Your task to perform on an android device: Search for hotels in Miami Image 0: 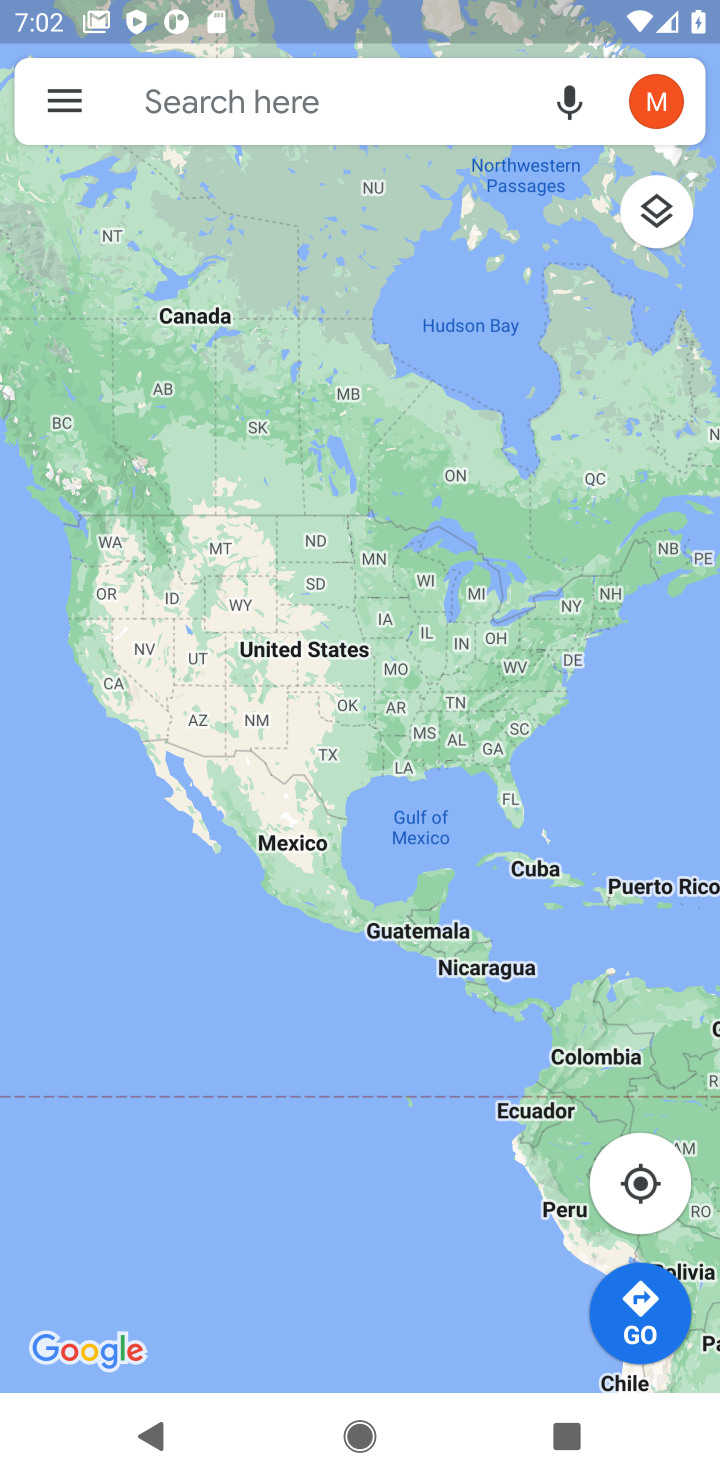
Step 0: press home button
Your task to perform on an android device: Search for hotels in Miami Image 1: 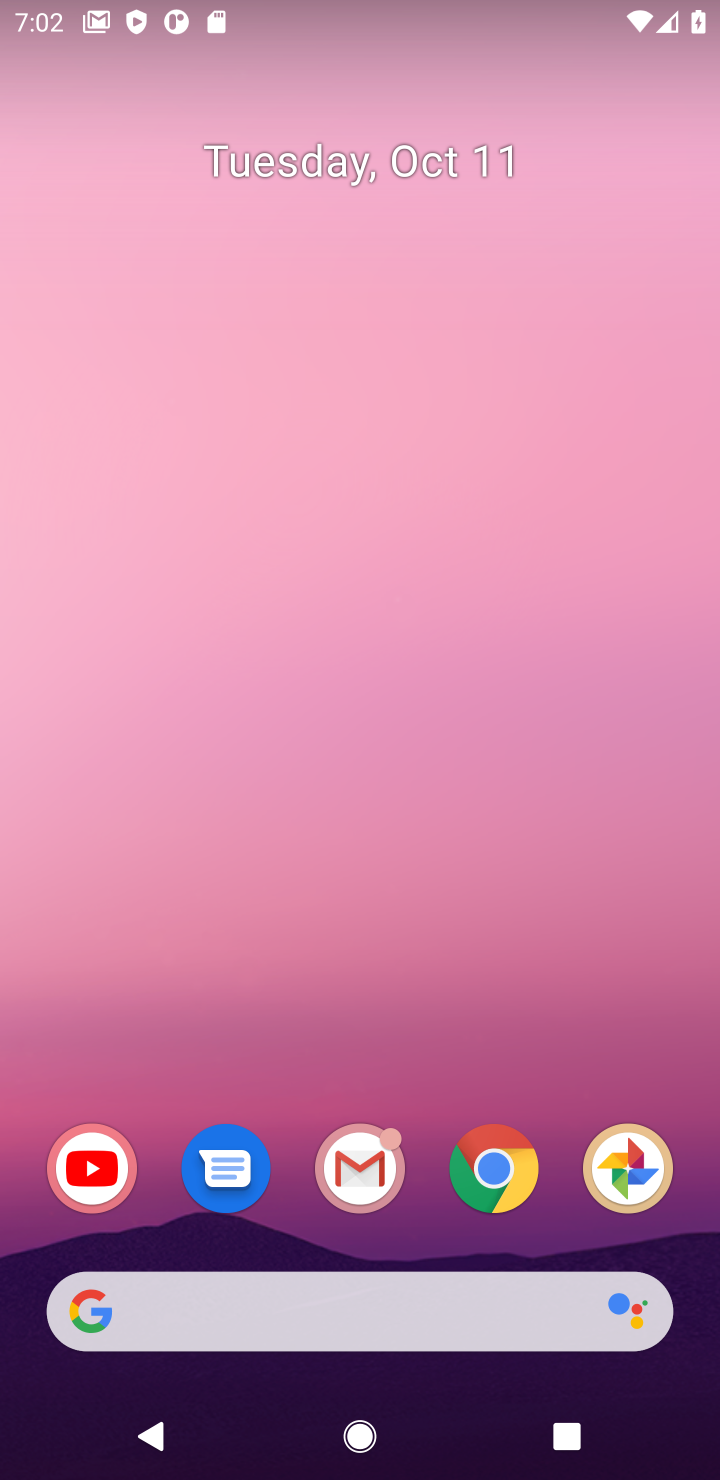
Step 1: click (483, 1167)
Your task to perform on an android device: Search for hotels in Miami Image 2: 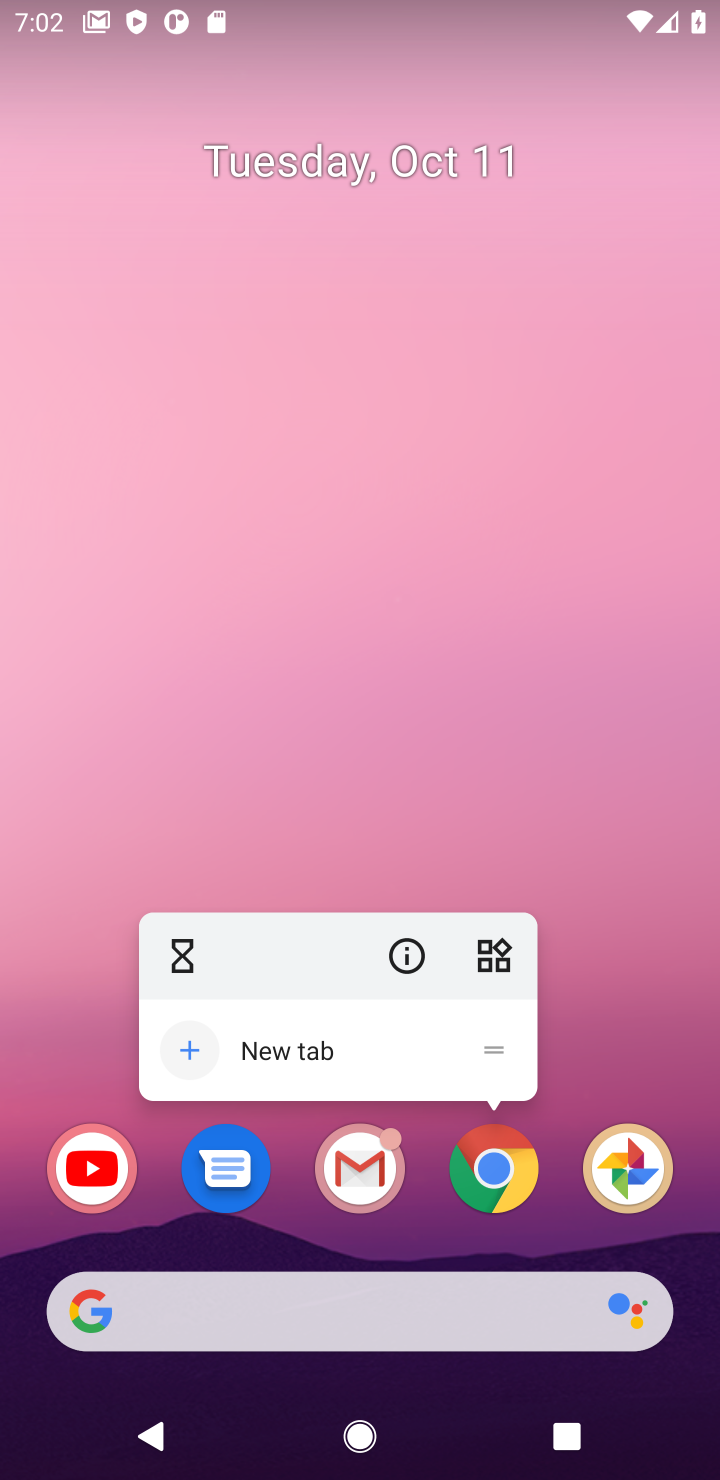
Step 2: click (482, 1162)
Your task to perform on an android device: Search for hotels in Miami Image 3: 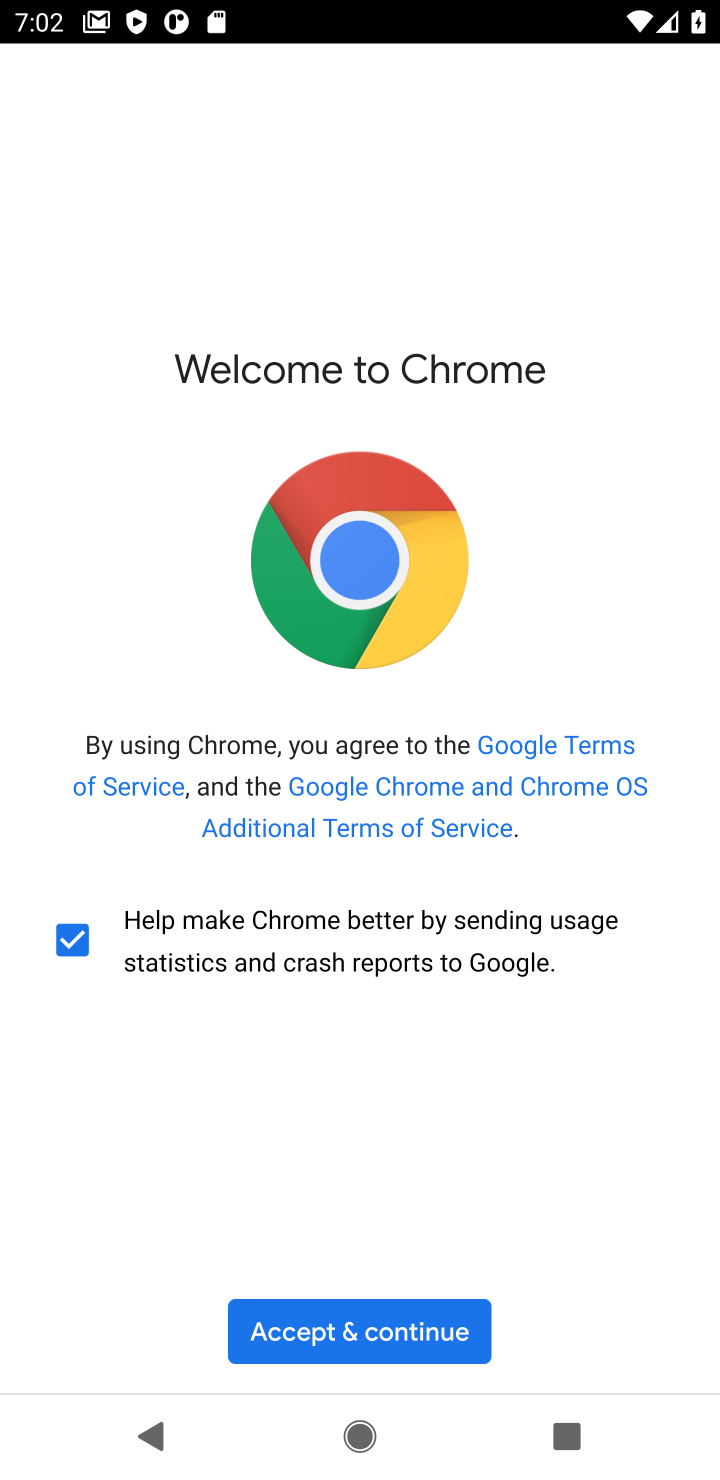
Step 3: click (274, 1349)
Your task to perform on an android device: Search for hotels in Miami Image 4: 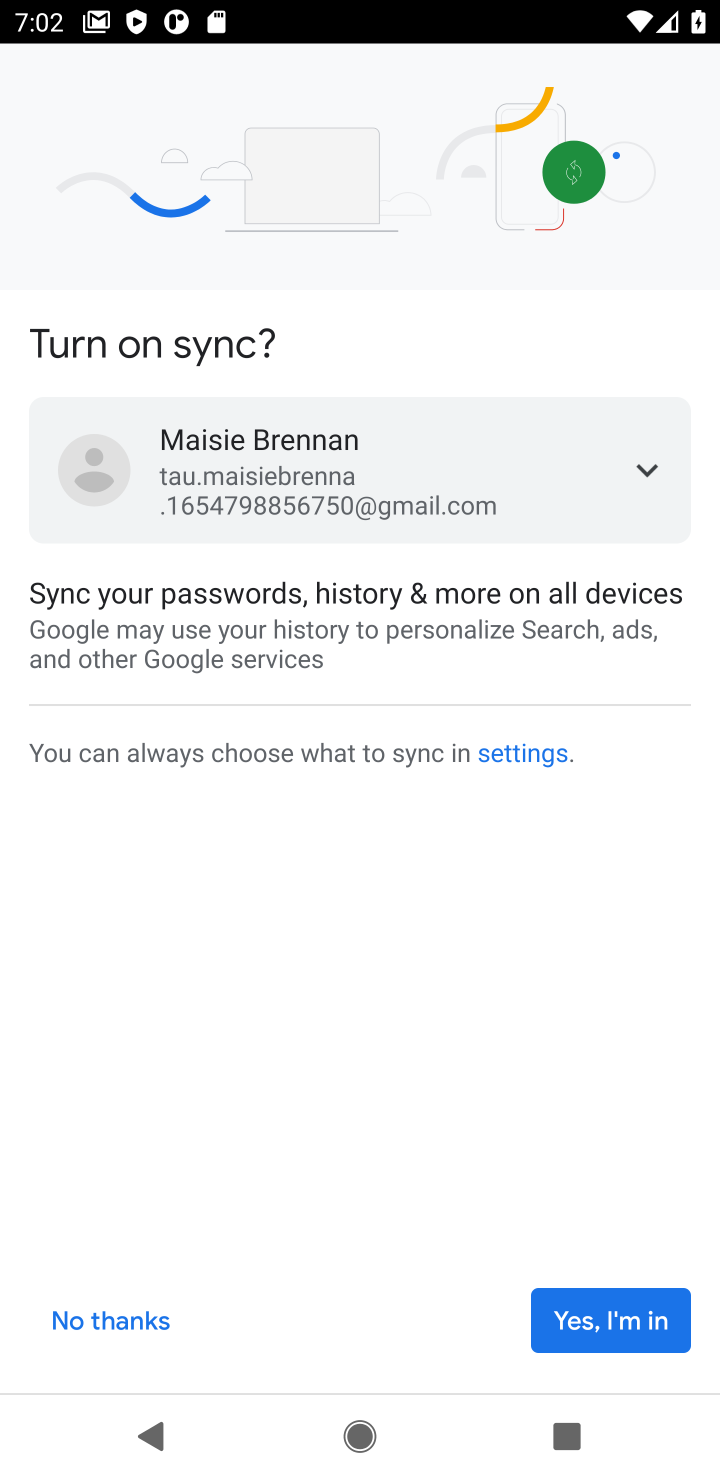
Step 4: click (634, 1314)
Your task to perform on an android device: Search for hotels in Miami Image 5: 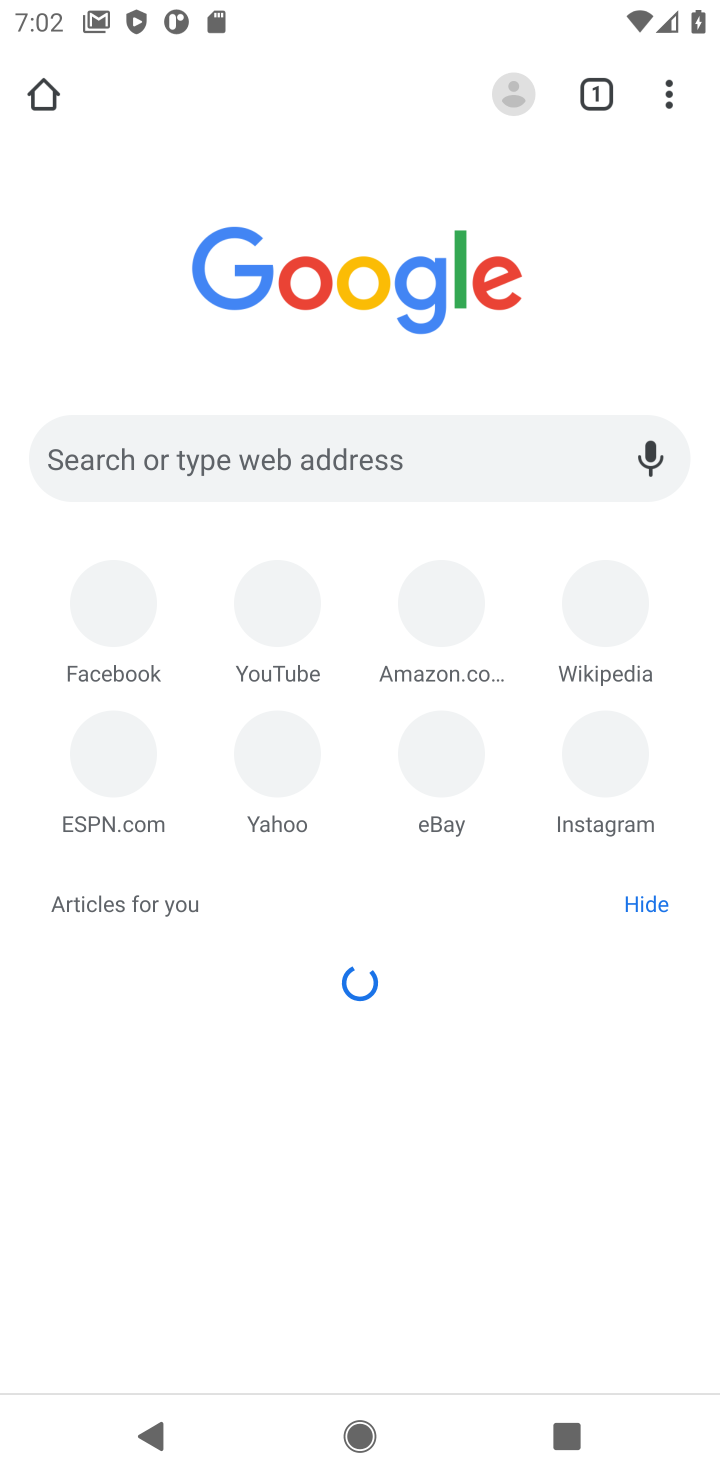
Step 5: click (136, 451)
Your task to perform on an android device: Search for hotels in Miami Image 6: 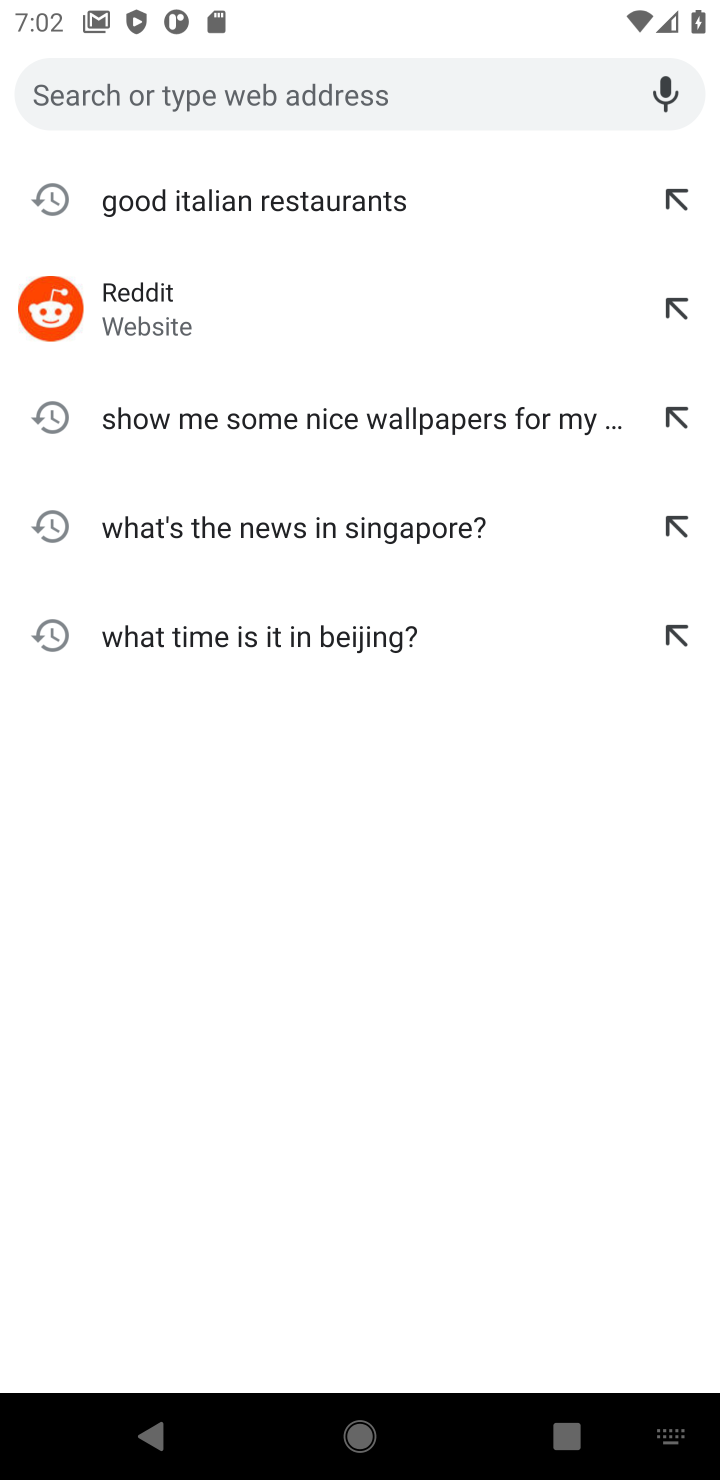
Step 6: type "hotel for miami"
Your task to perform on an android device: Search for hotels in Miami Image 7: 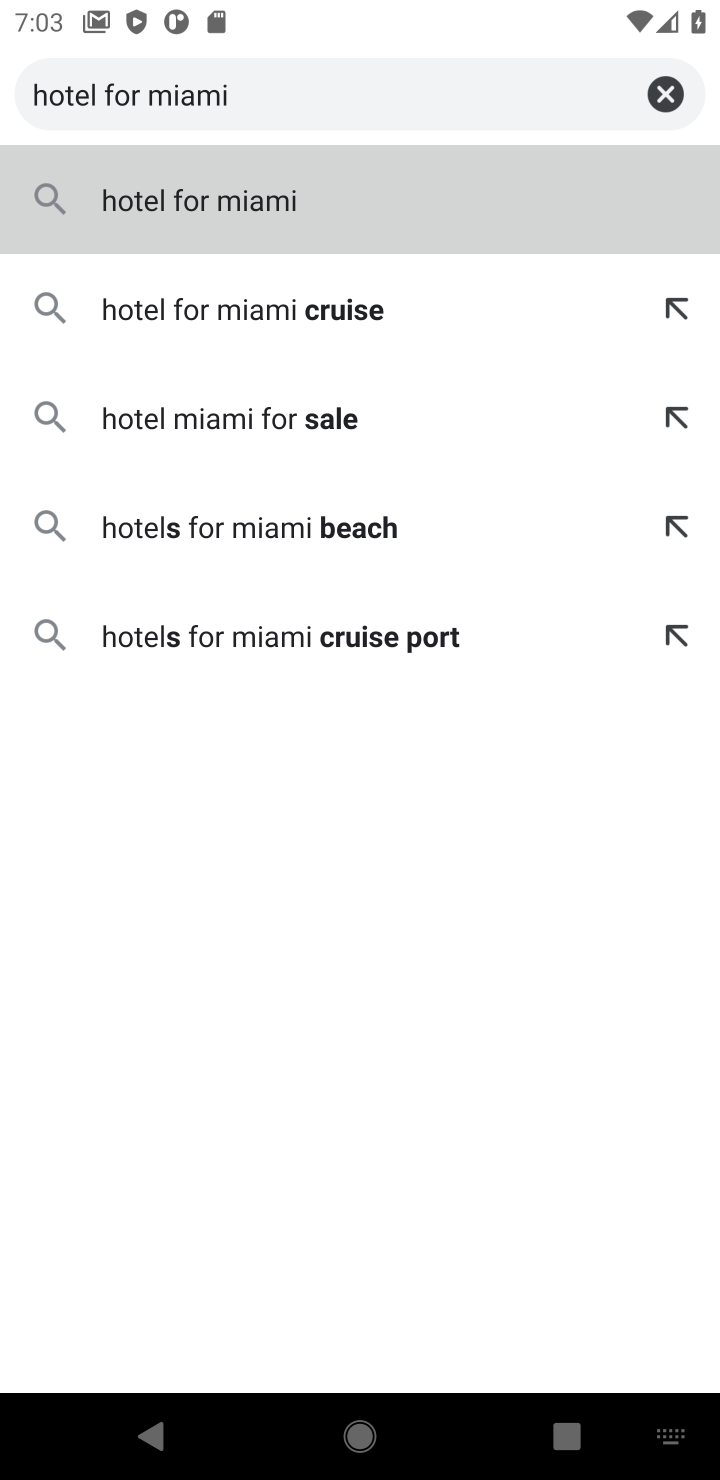
Step 7: type ""
Your task to perform on an android device: Search for hotels in Miami Image 8: 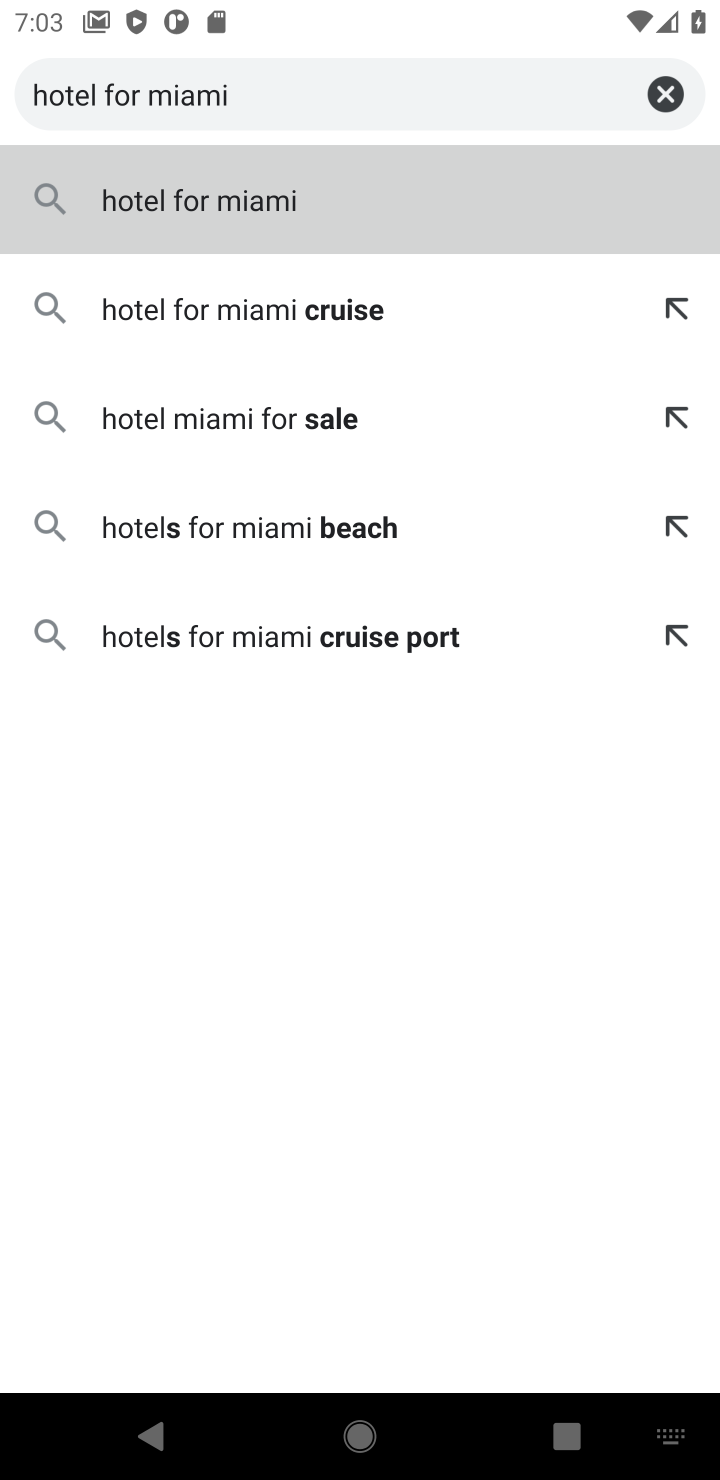
Step 8: click (239, 223)
Your task to perform on an android device: Search for hotels in Miami Image 9: 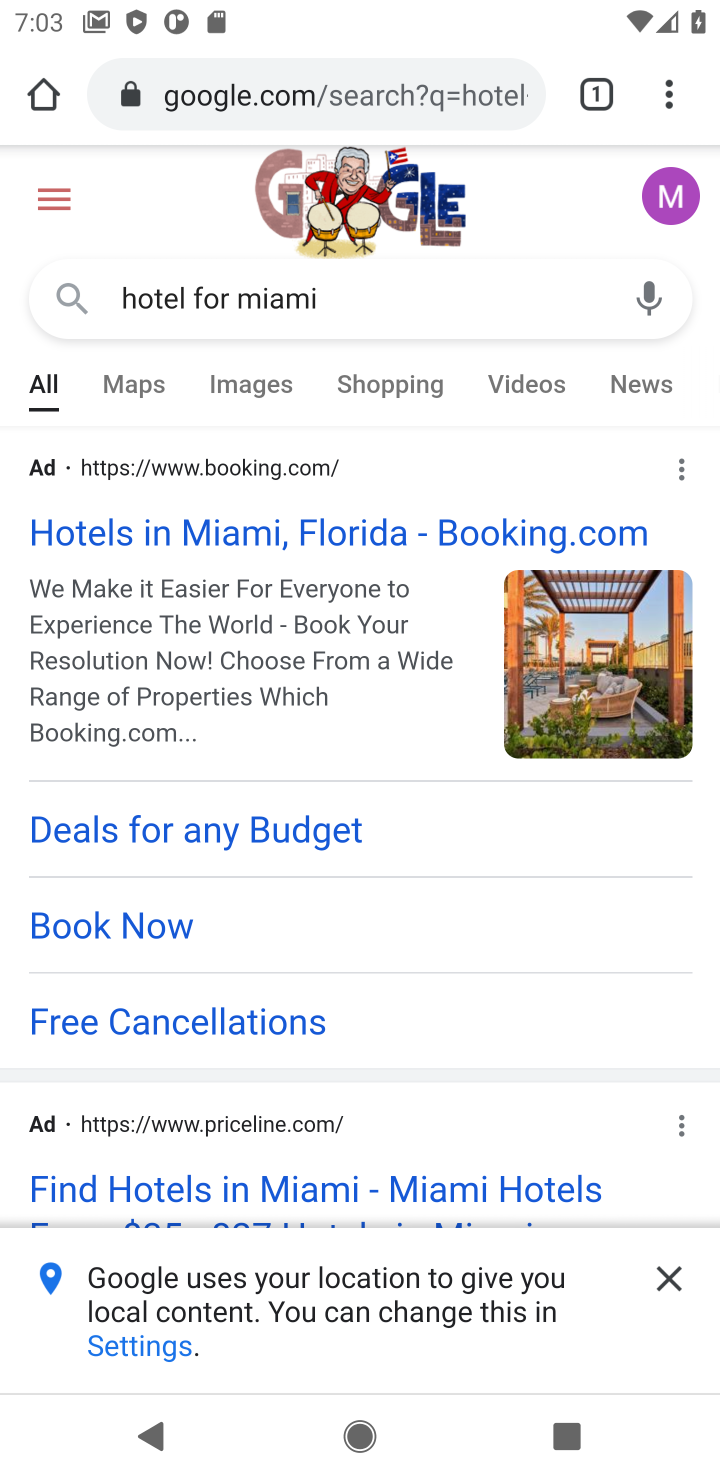
Step 9: click (221, 532)
Your task to perform on an android device: Search for hotels in Miami Image 10: 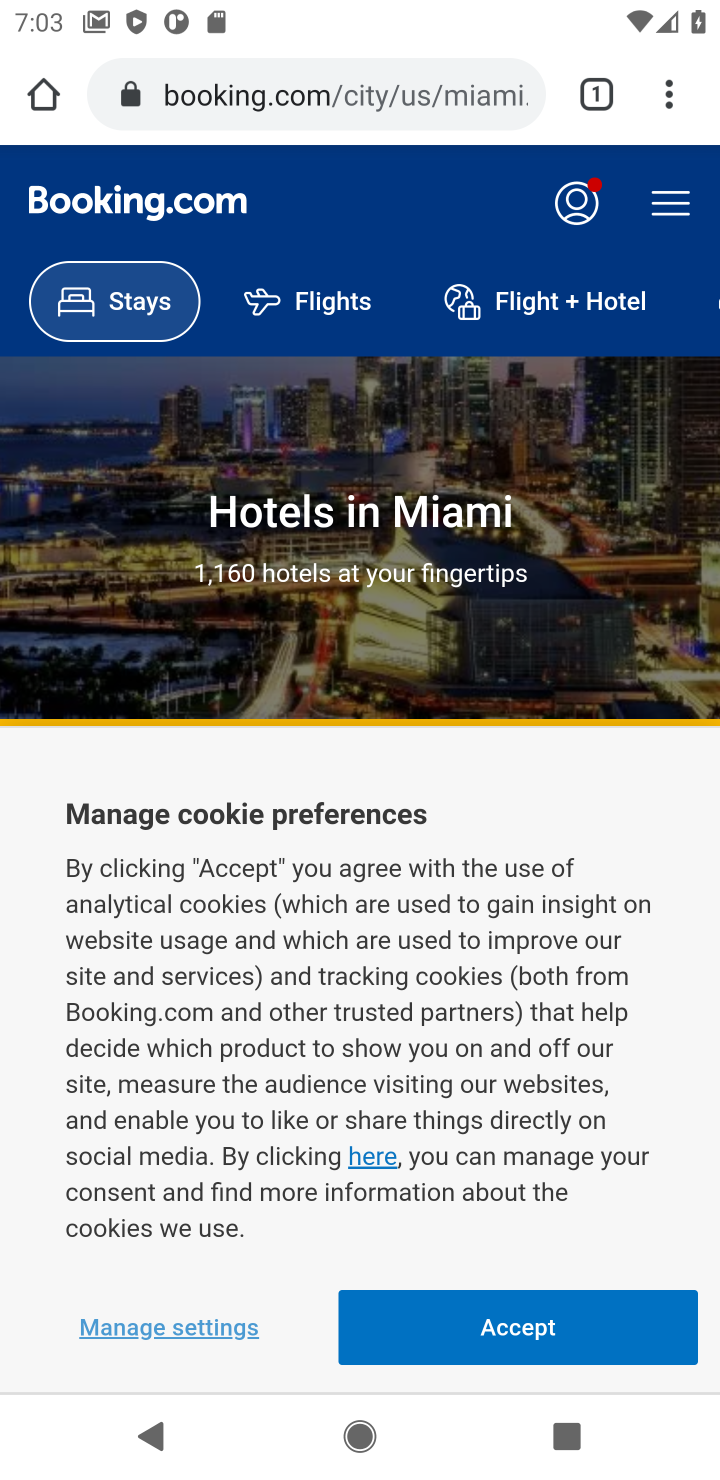
Step 10: click (550, 1334)
Your task to perform on an android device: Search for hotels in Miami Image 11: 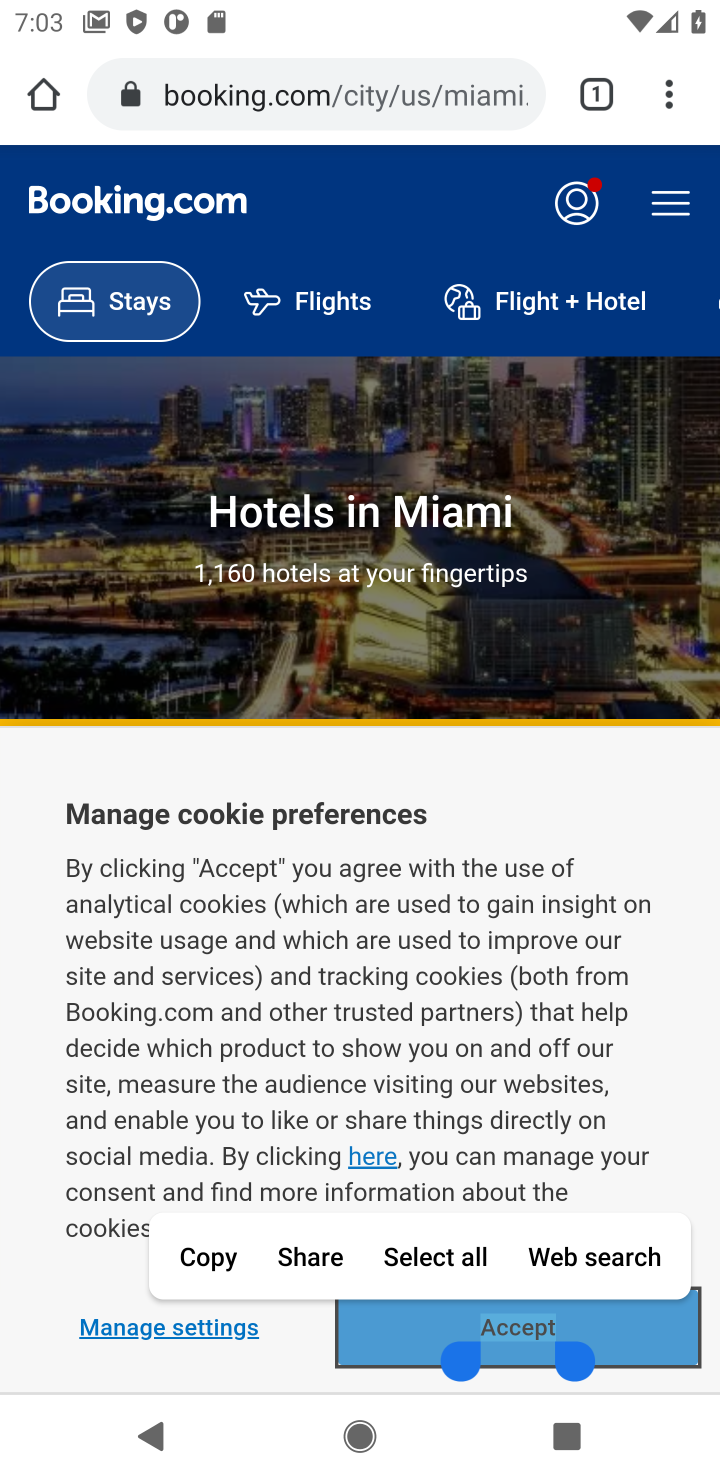
Step 11: drag from (393, 896) to (488, 312)
Your task to perform on an android device: Search for hotels in Miami Image 12: 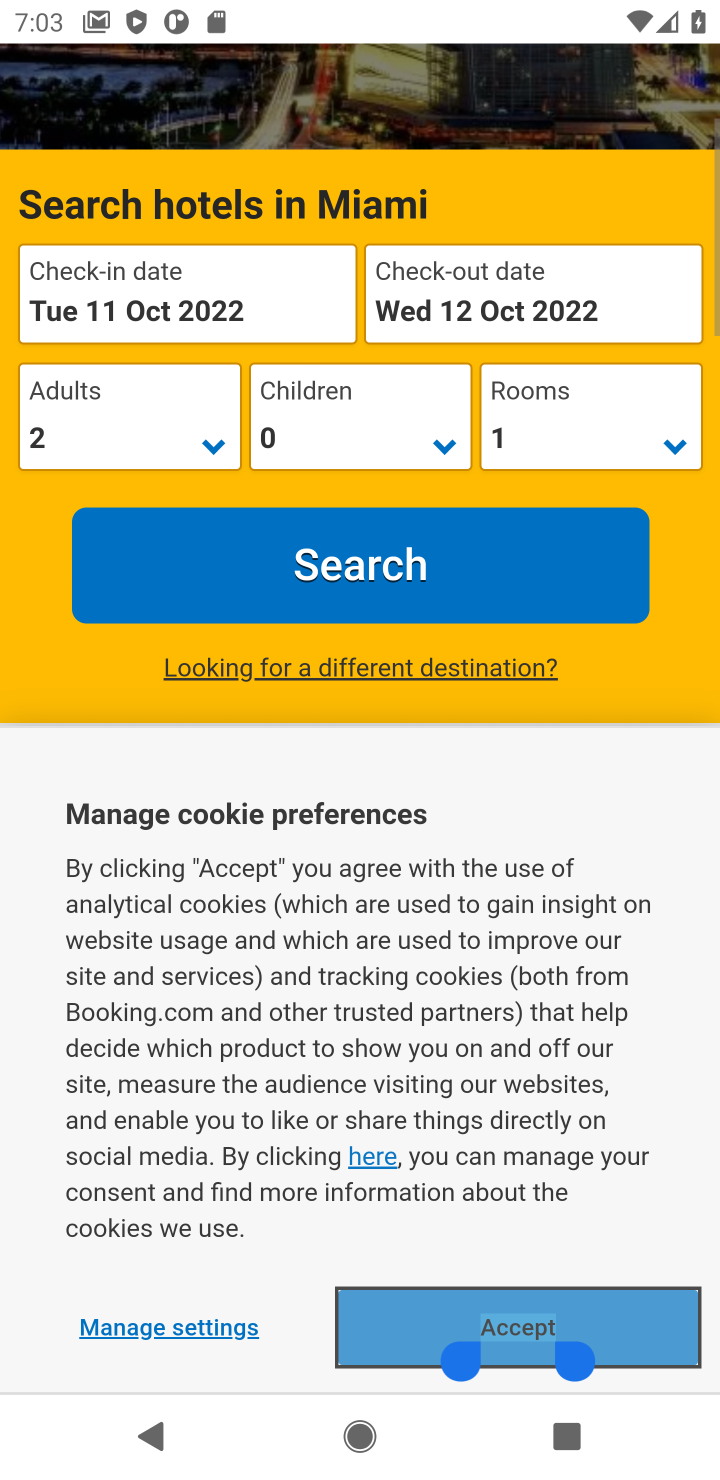
Step 12: drag from (286, 1021) to (343, 365)
Your task to perform on an android device: Search for hotels in Miami Image 13: 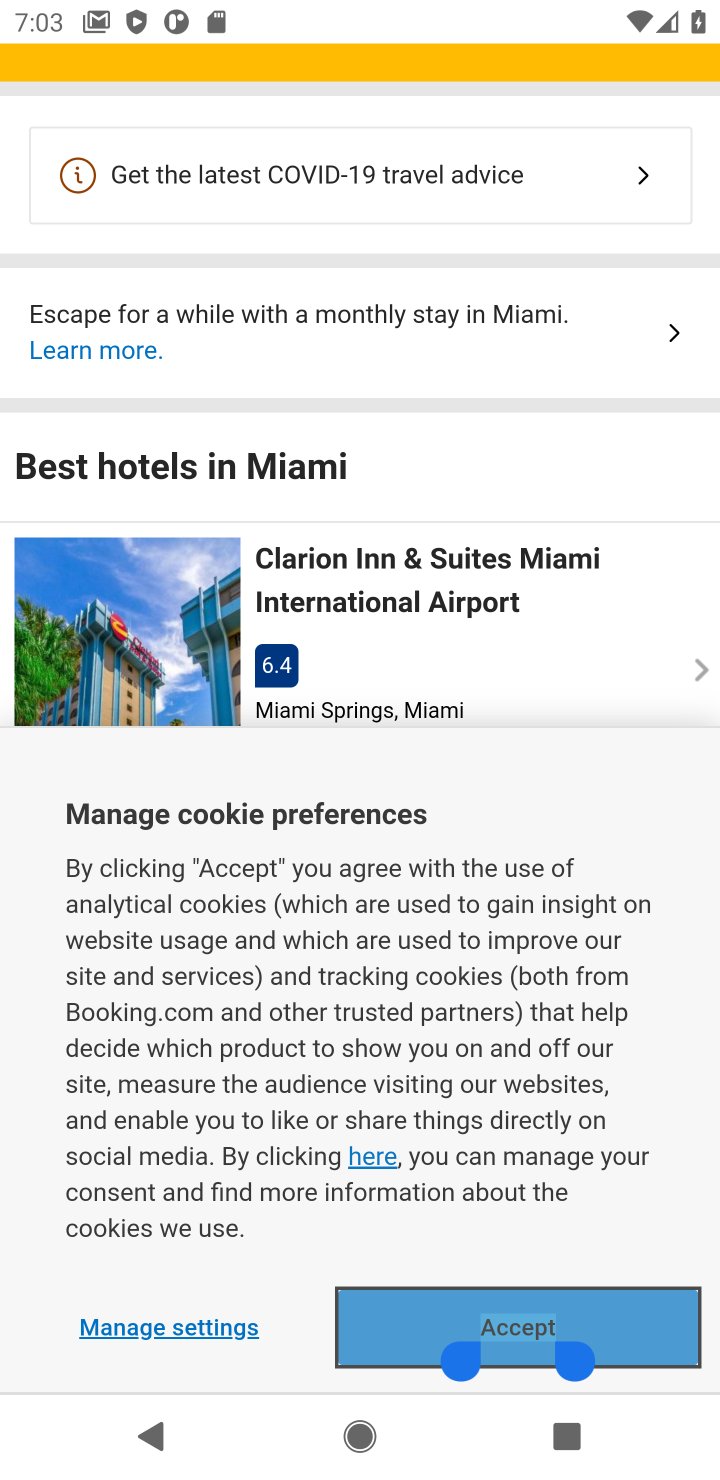
Step 13: drag from (427, 1102) to (428, 672)
Your task to perform on an android device: Search for hotels in Miami Image 14: 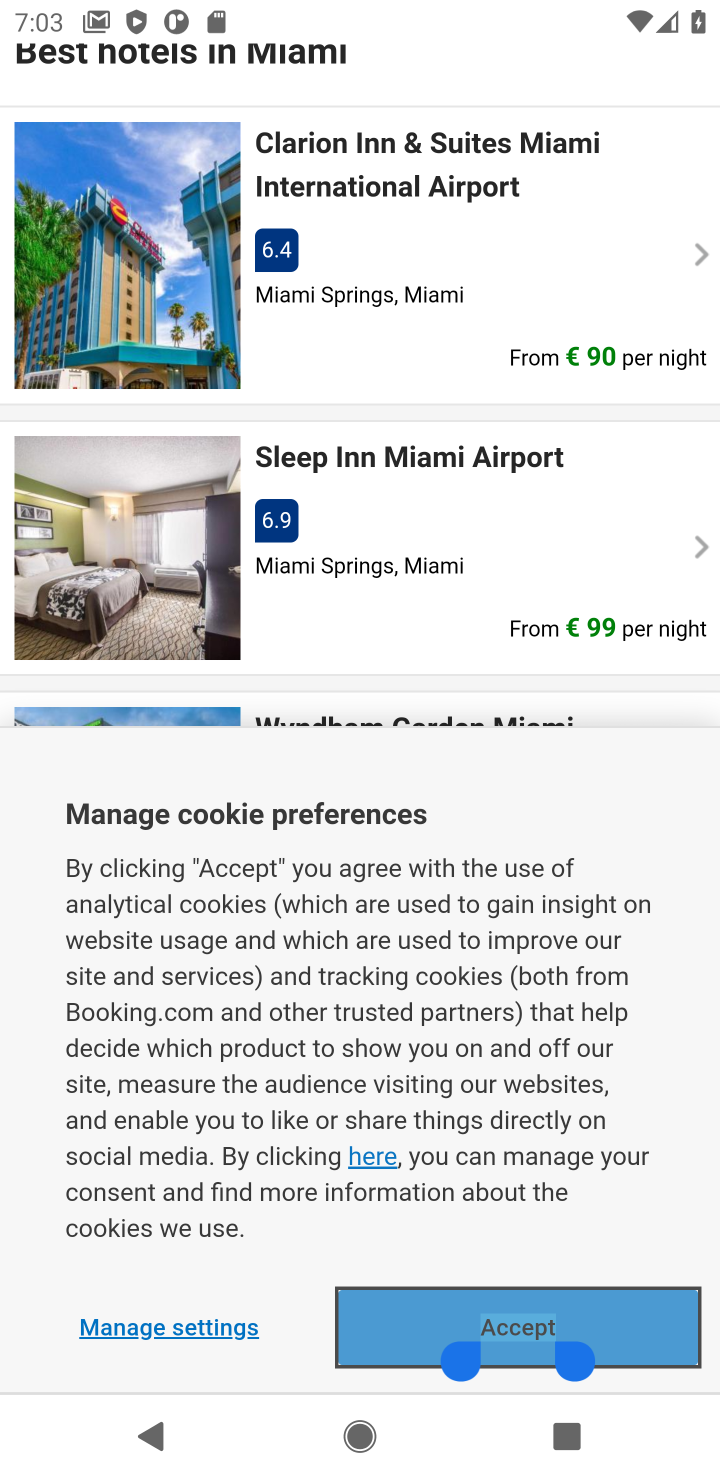
Step 14: click (502, 1331)
Your task to perform on an android device: Search for hotels in Miami Image 15: 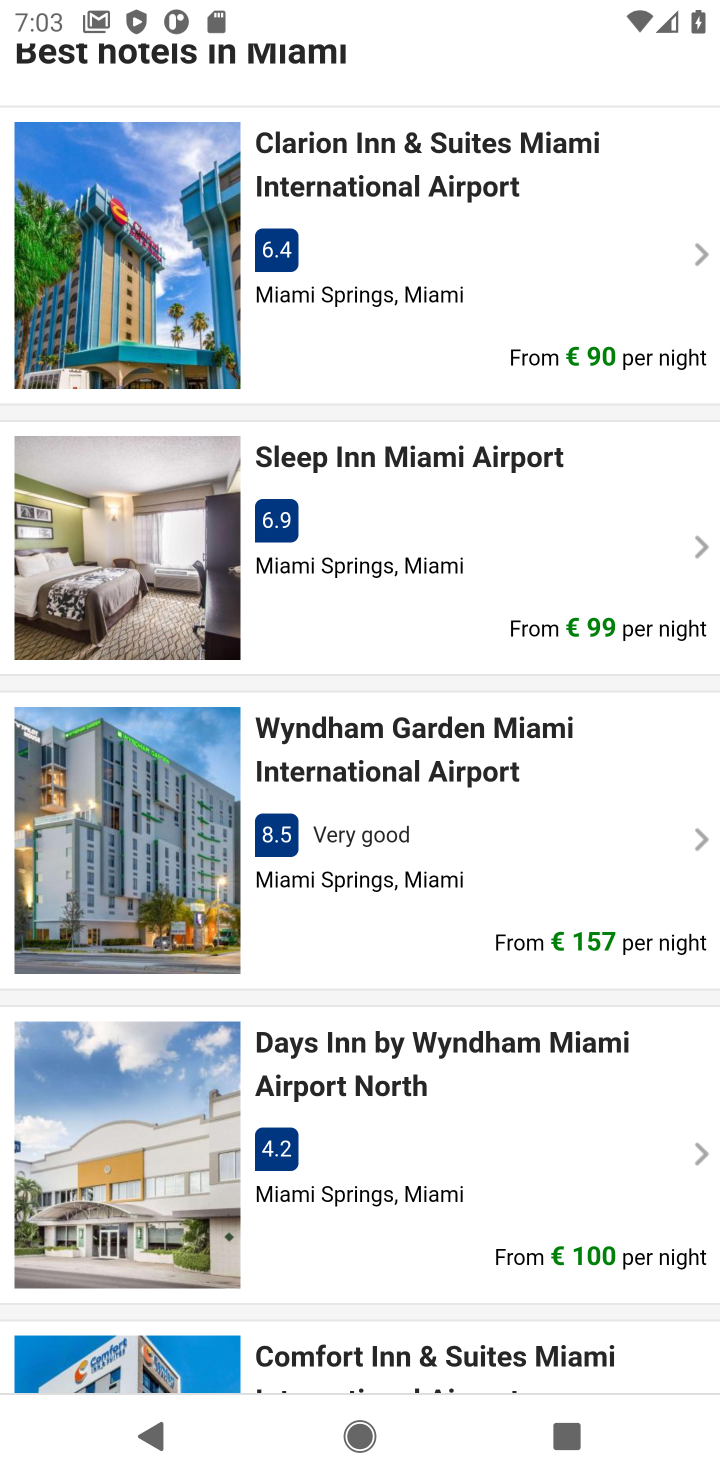
Step 15: drag from (345, 1063) to (383, 329)
Your task to perform on an android device: Search for hotels in Miami Image 16: 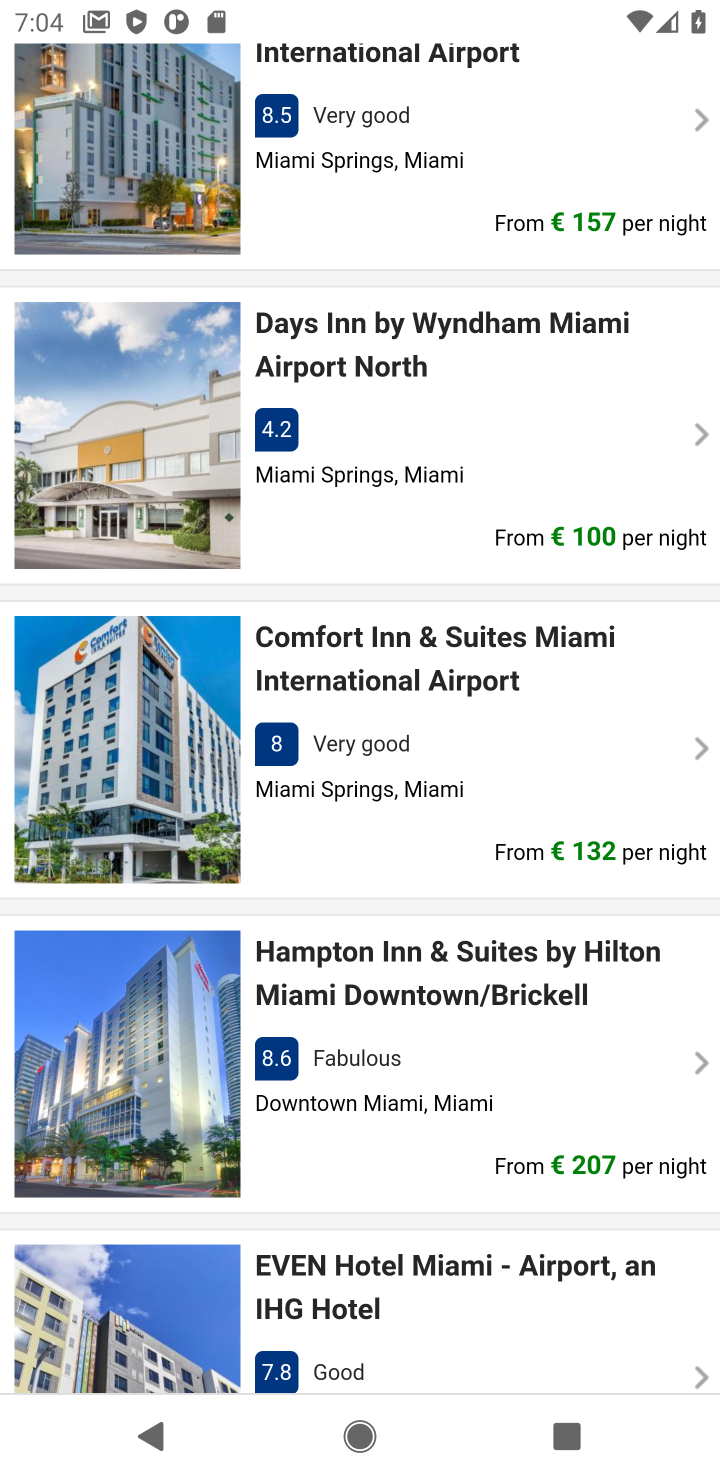
Step 16: drag from (532, 868) to (609, 58)
Your task to perform on an android device: Search for hotels in Miami Image 17: 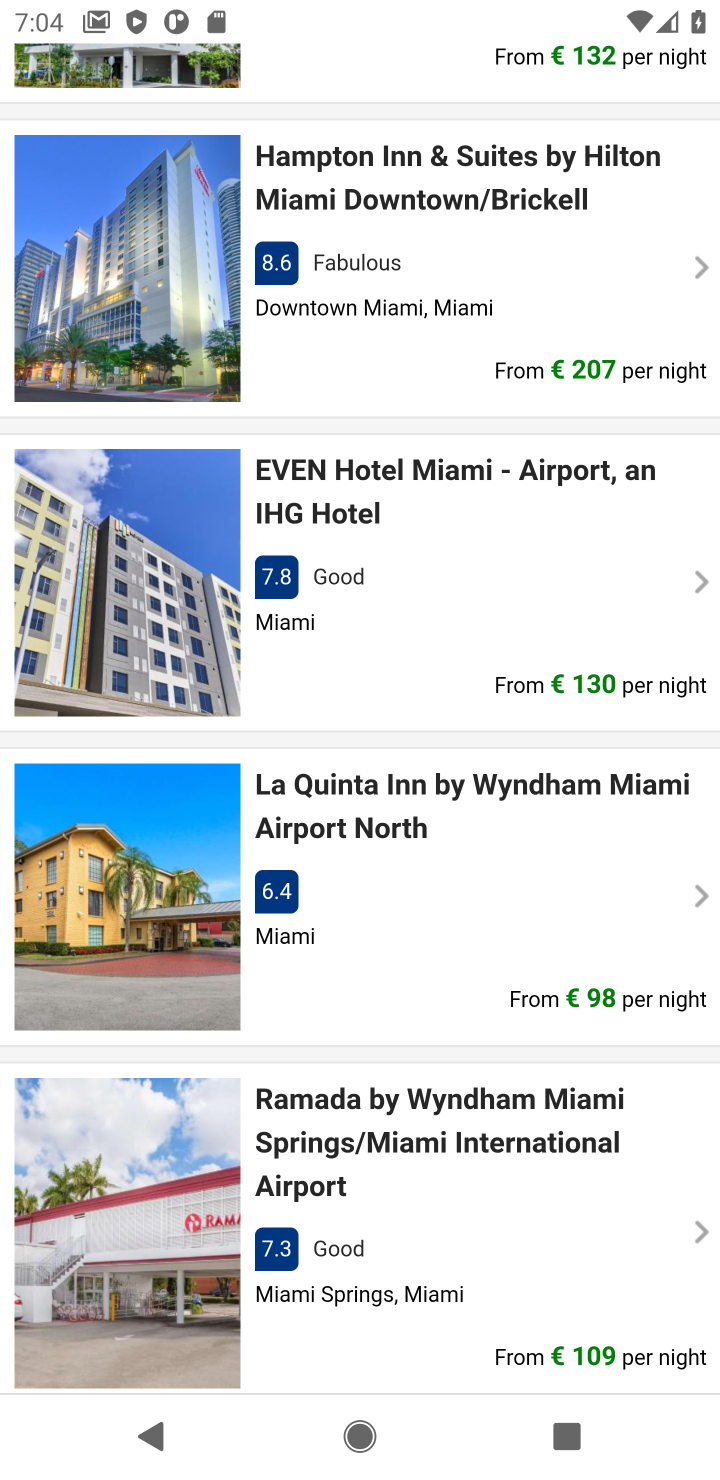
Step 17: drag from (510, 932) to (510, 188)
Your task to perform on an android device: Search for hotels in Miami Image 18: 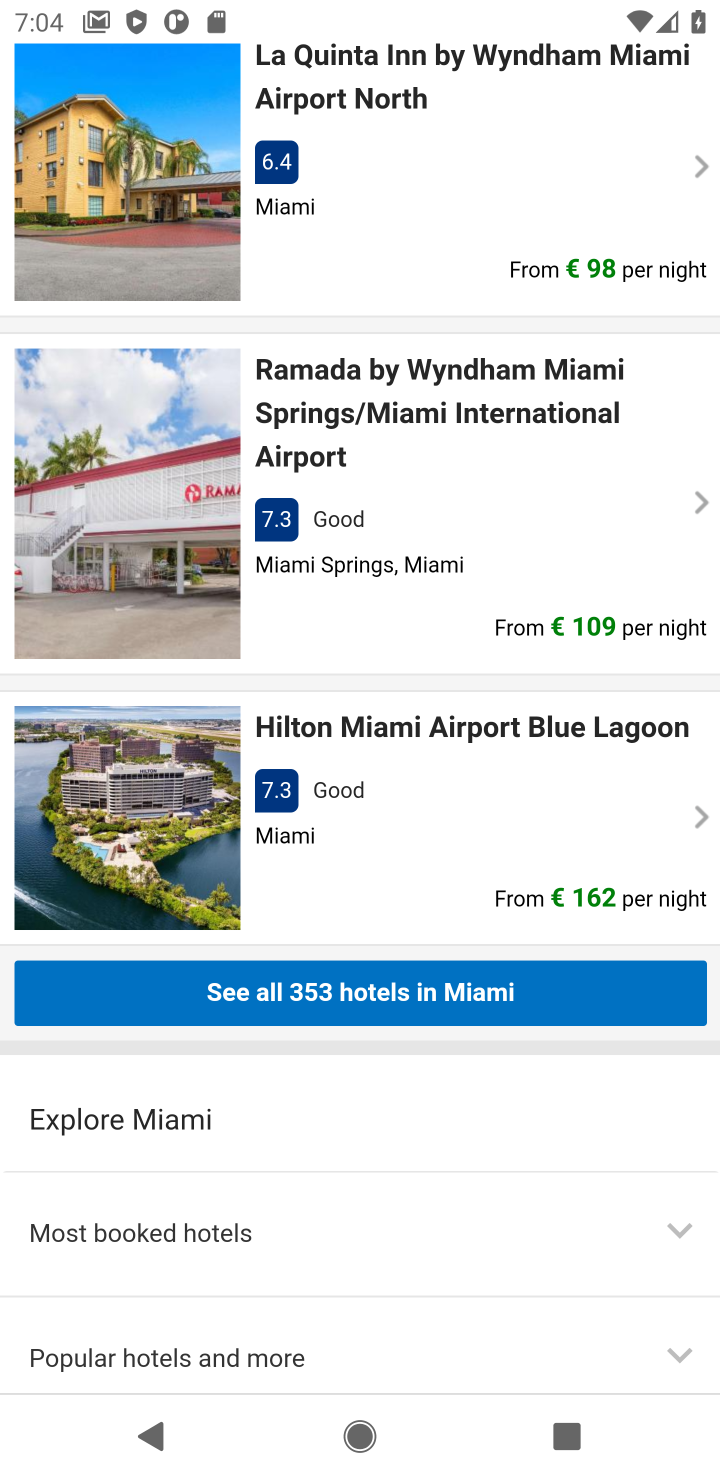
Step 18: click (115, 761)
Your task to perform on an android device: Search for hotels in Miami Image 19: 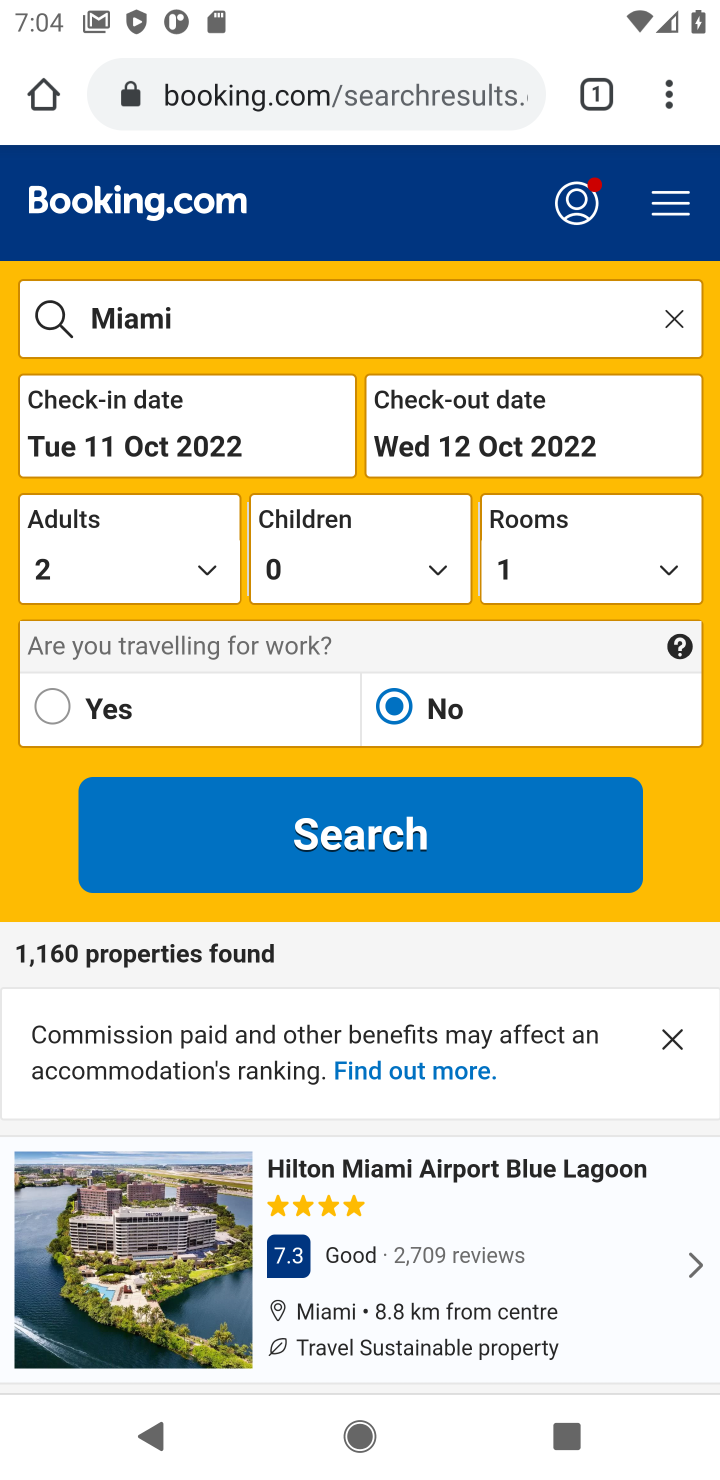
Step 19: drag from (549, 1265) to (689, 437)
Your task to perform on an android device: Search for hotels in Miami Image 20: 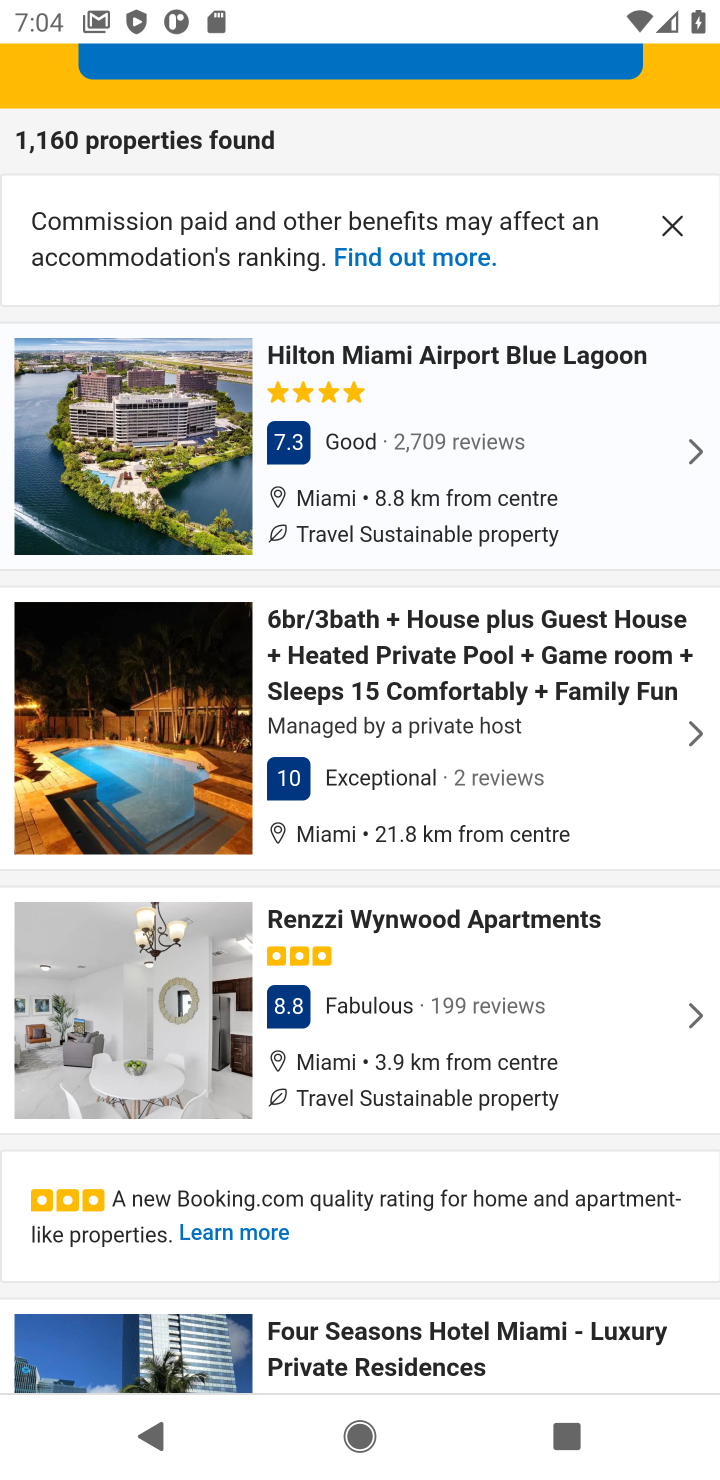
Step 20: click (433, 357)
Your task to perform on an android device: Search for hotels in Miami Image 21: 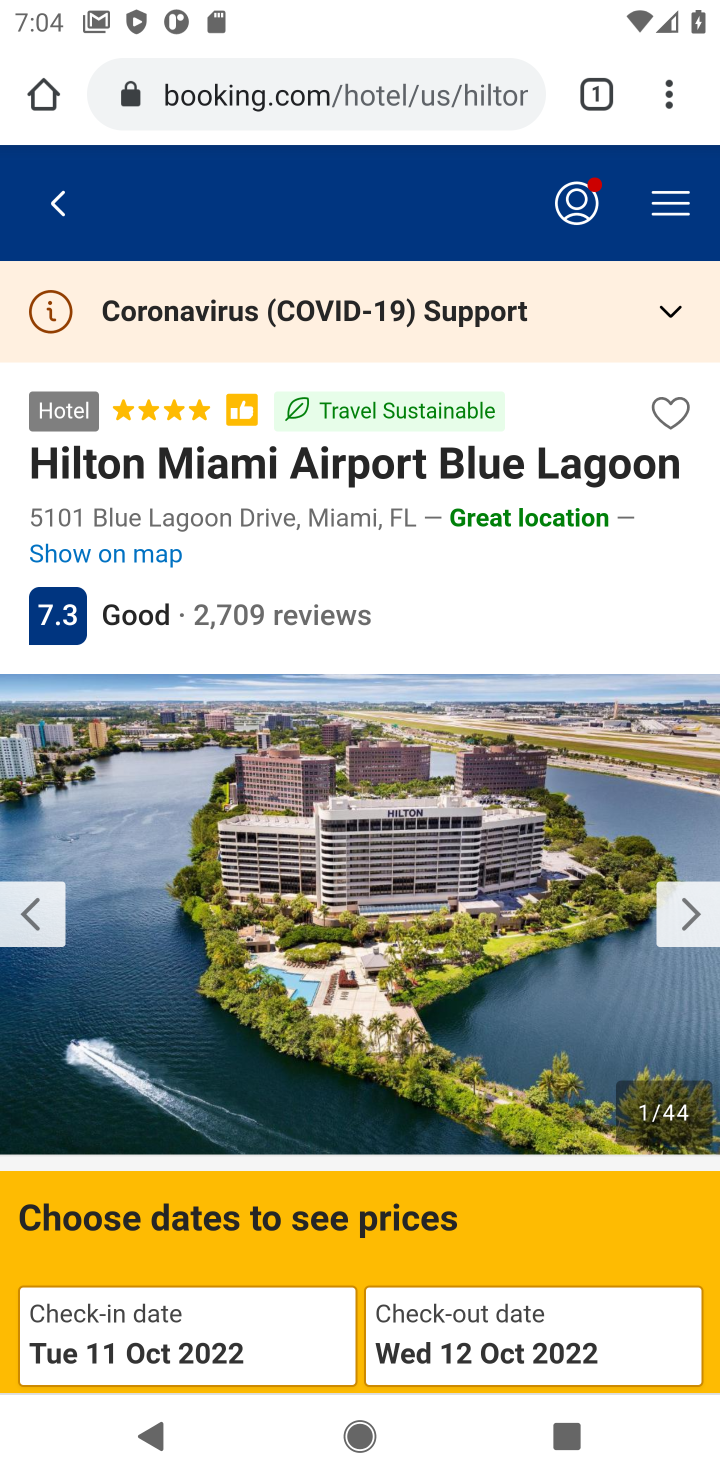
Step 21: drag from (381, 854) to (420, 449)
Your task to perform on an android device: Search for hotels in Miami Image 22: 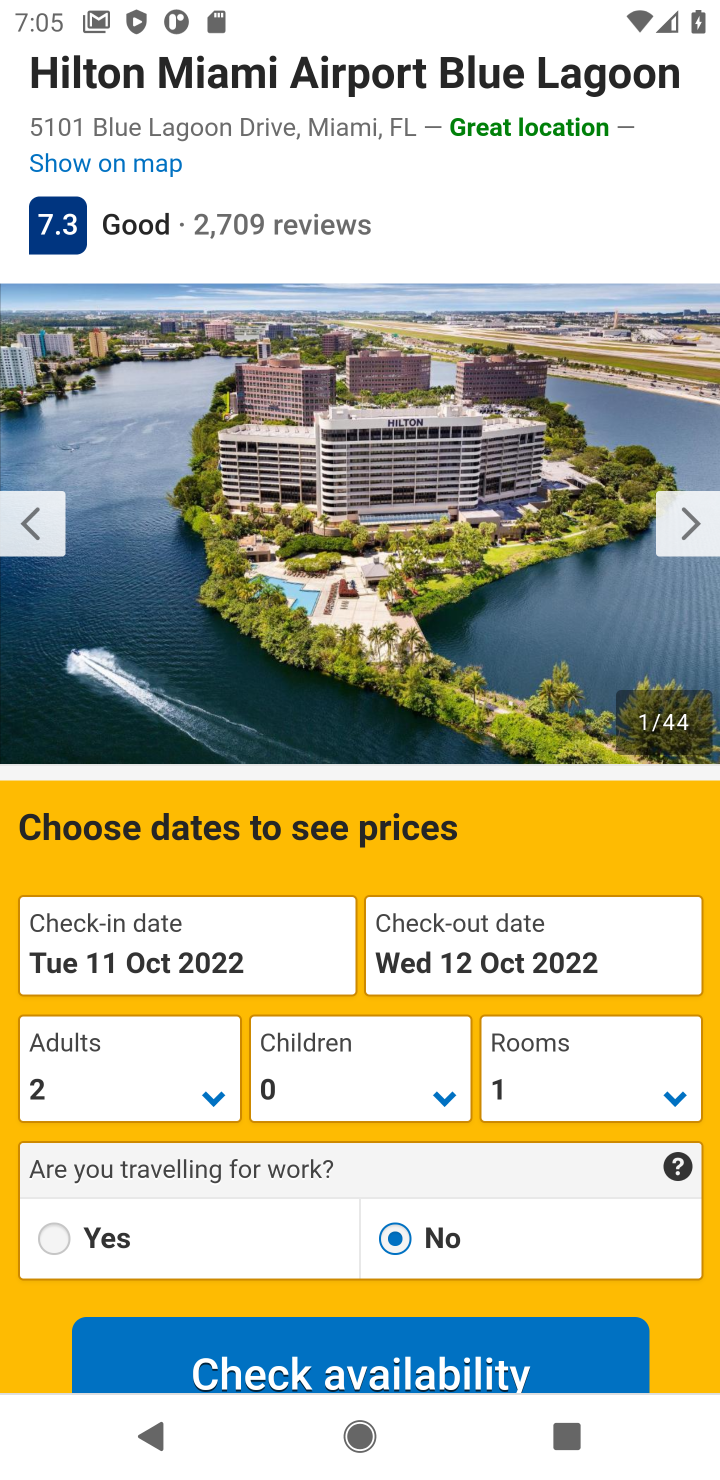
Step 22: drag from (394, 619) to (508, 152)
Your task to perform on an android device: Search for hotels in Miami Image 23: 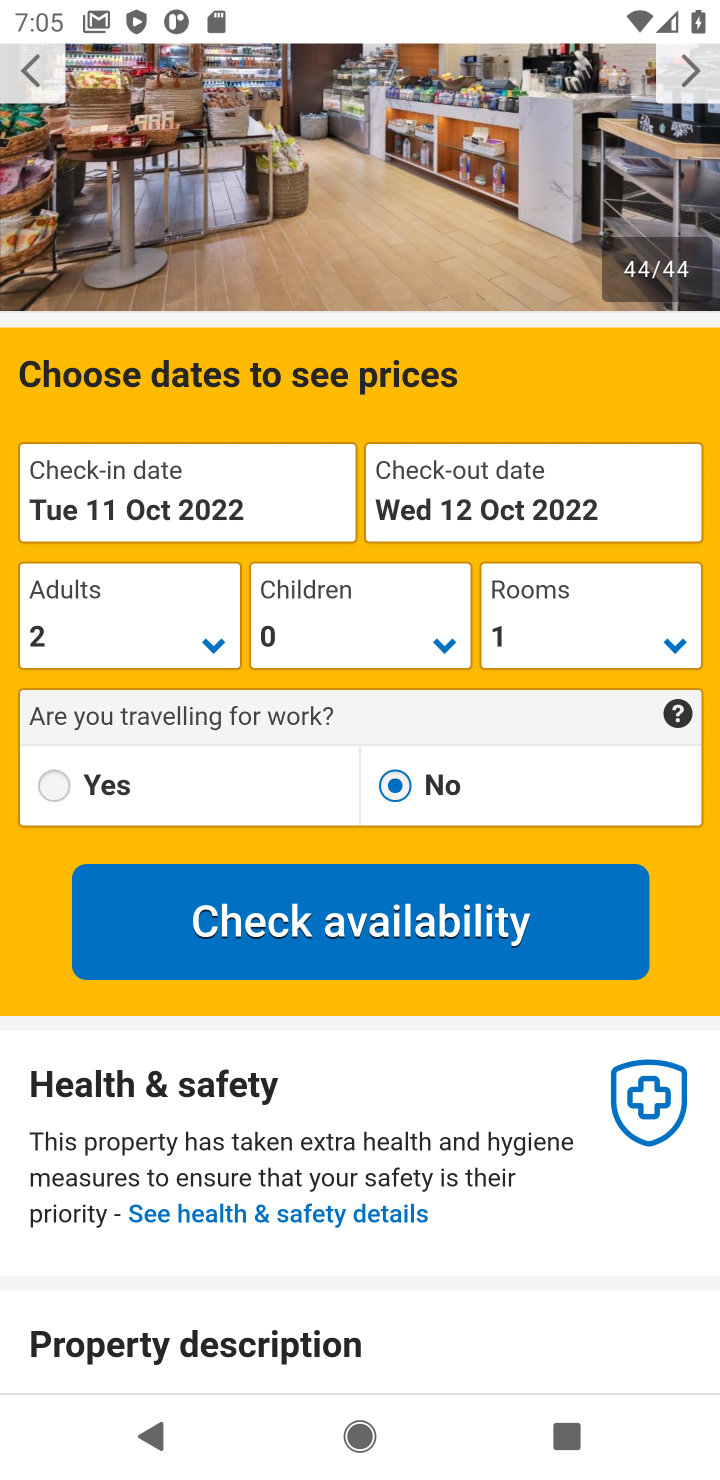
Step 23: click (29, 72)
Your task to perform on an android device: Search for hotels in Miami Image 24: 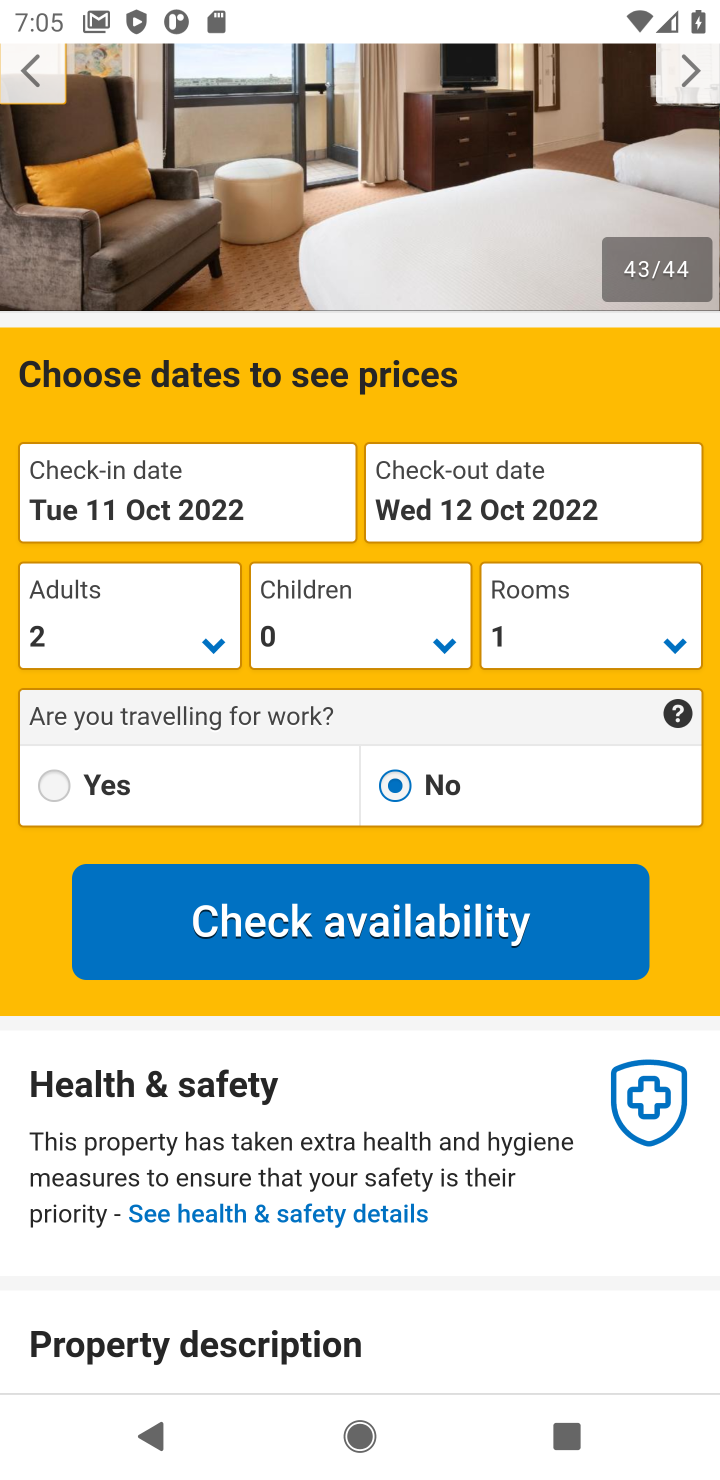
Step 24: task complete